Your task to perform on an android device: delete a single message in the gmail app Image 0: 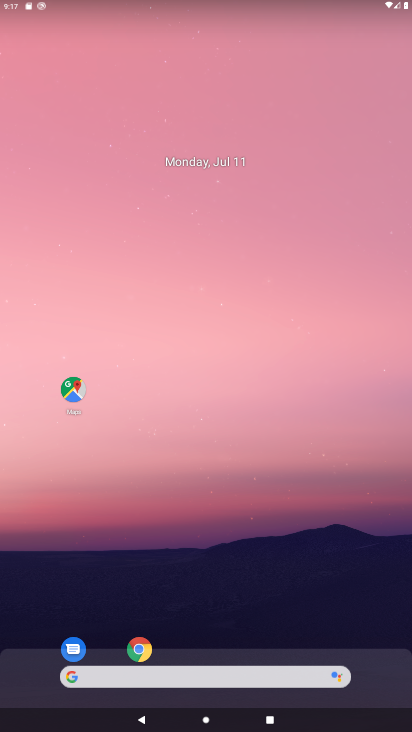
Step 0: drag from (294, 657) to (255, 117)
Your task to perform on an android device: delete a single message in the gmail app Image 1: 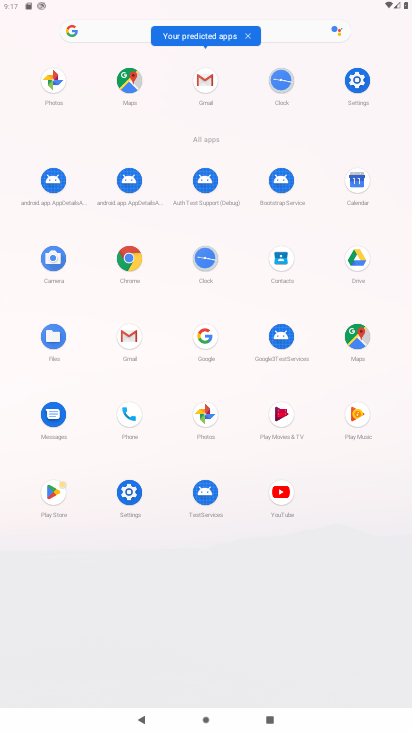
Step 1: click (207, 83)
Your task to perform on an android device: delete a single message in the gmail app Image 2: 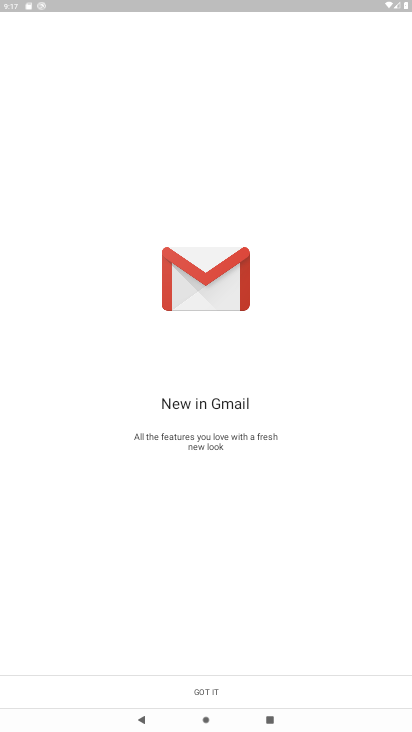
Step 2: click (269, 686)
Your task to perform on an android device: delete a single message in the gmail app Image 3: 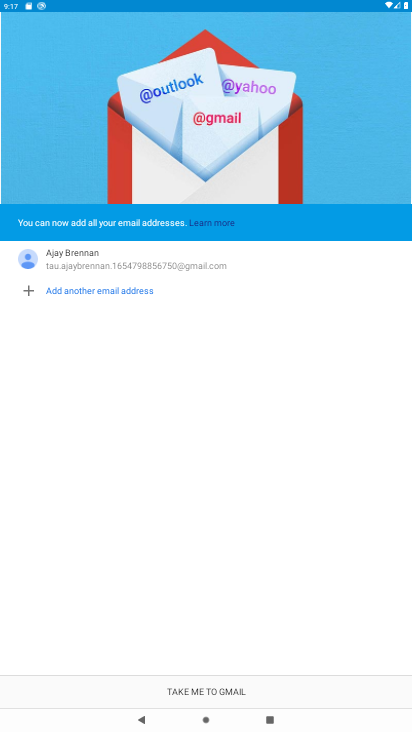
Step 3: click (245, 694)
Your task to perform on an android device: delete a single message in the gmail app Image 4: 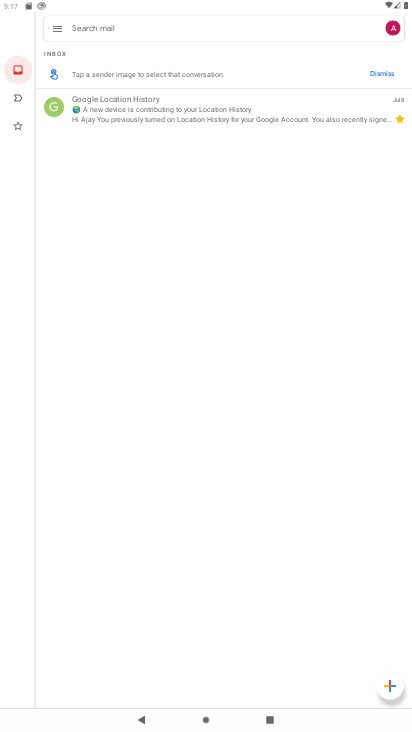
Step 4: click (183, 117)
Your task to perform on an android device: delete a single message in the gmail app Image 5: 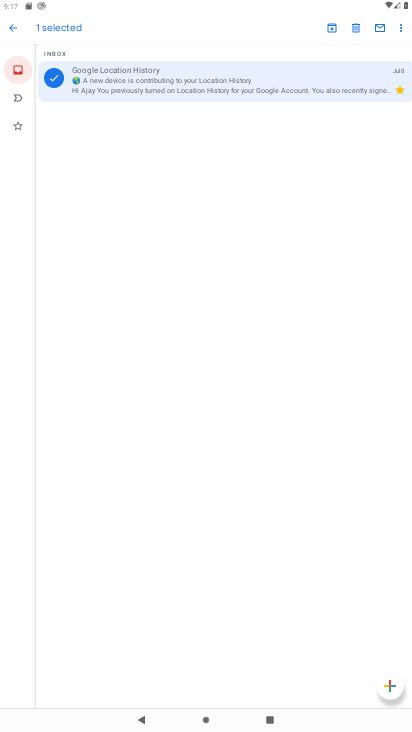
Step 5: click (354, 25)
Your task to perform on an android device: delete a single message in the gmail app Image 6: 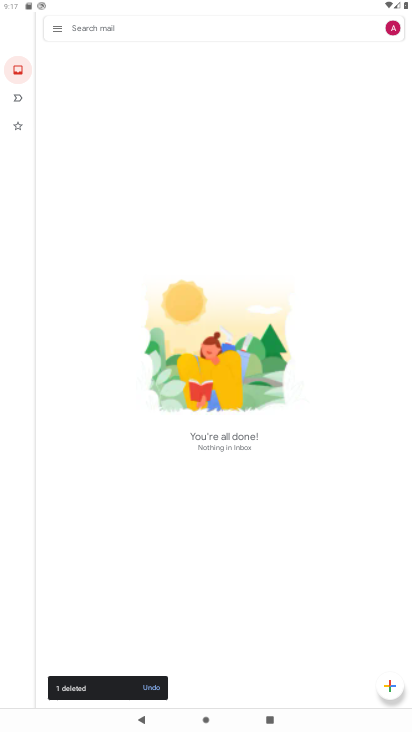
Step 6: task complete